Your task to perform on an android device: set the timer Image 0: 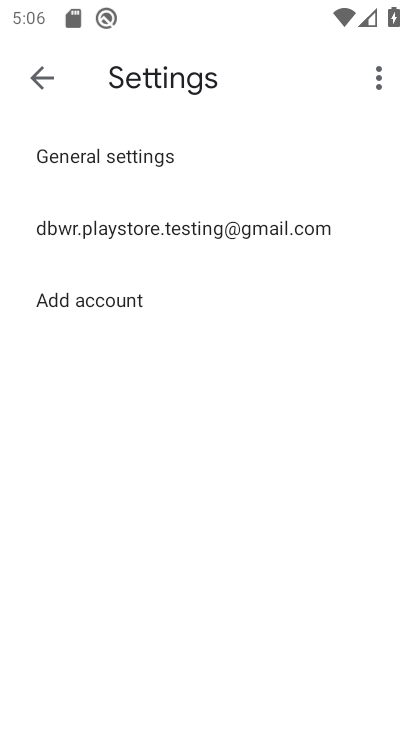
Step 0: task impossible